Your task to perform on an android device: turn off picture-in-picture Image 0: 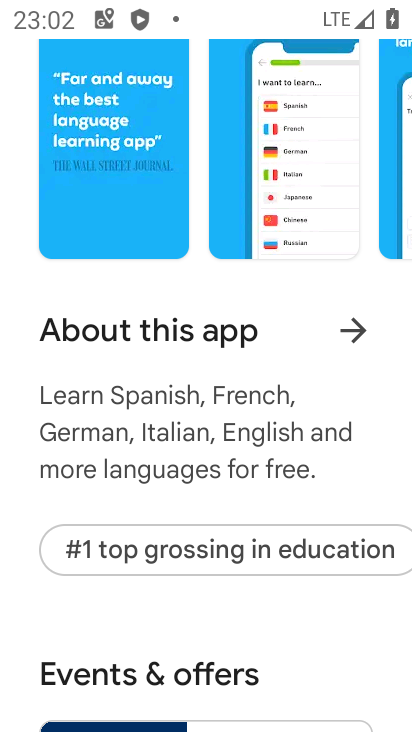
Step 0: press home button
Your task to perform on an android device: turn off picture-in-picture Image 1: 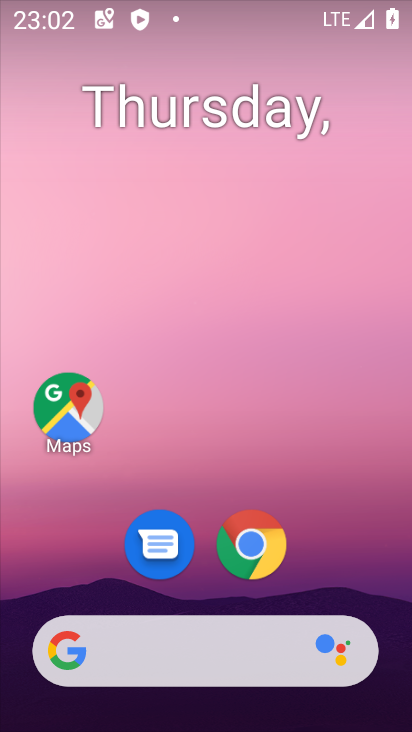
Step 1: drag from (301, 574) to (296, 92)
Your task to perform on an android device: turn off picture-in-picture Image 2: 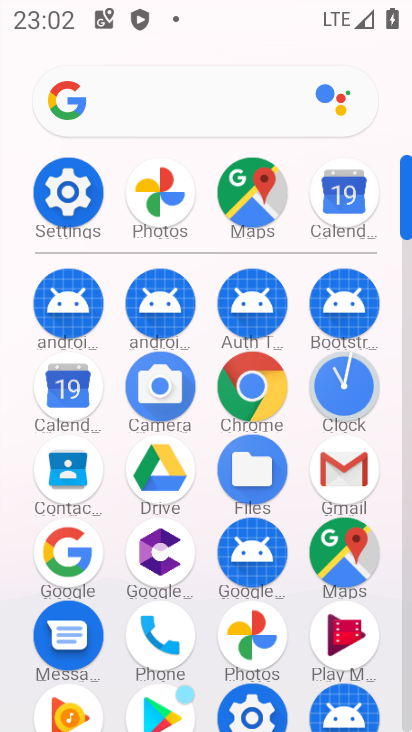
Step 2: click (61, 184)
Your task to perform on an android device: turn off picture-in-picture Image 3: 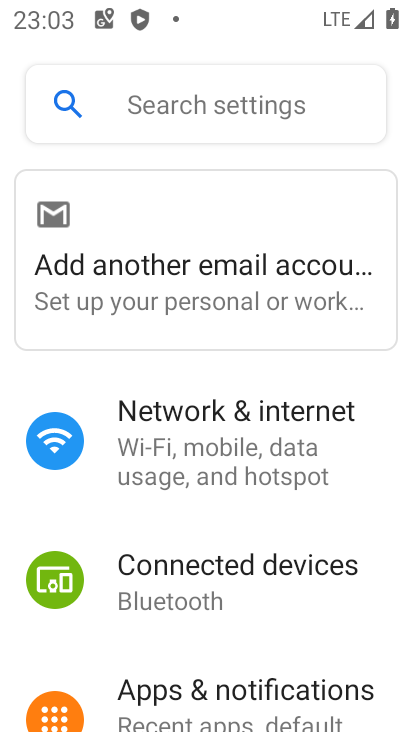
Step 3: drag from (191, 678) to (220, 507)
Your task to perform on an android device: turn off picture-in-picture Image 4: 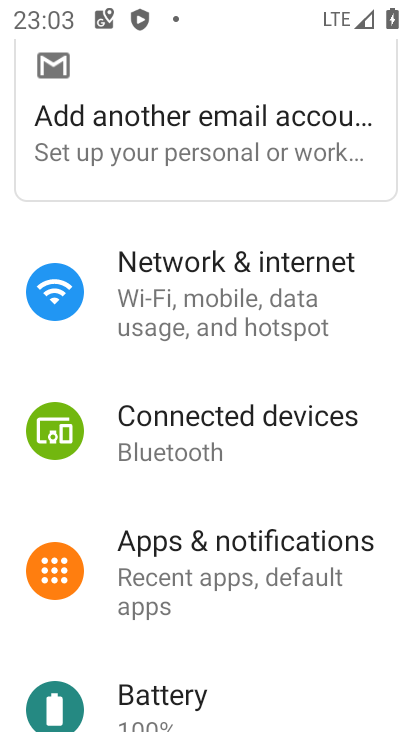
Step 4: click (190, 577)
Your task to perform on an android device: turn off picture-in-picture Image 5: 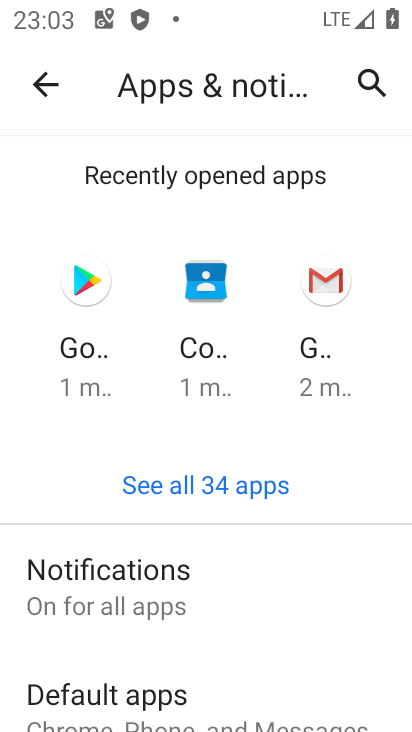
Step 5: drag from (126, 707) to (189, 278)
Your task to perform on an android device: turn off picture-in-picture Image 6: 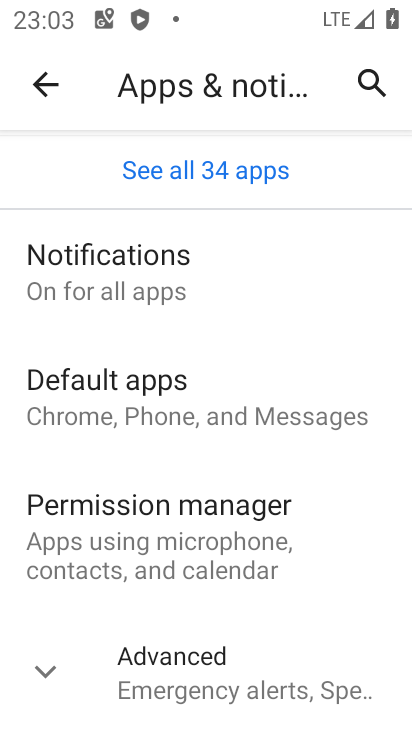
Step 6: click (164, 673)
Your task to perform on an android device: turn off picture-in-picture Image 7: 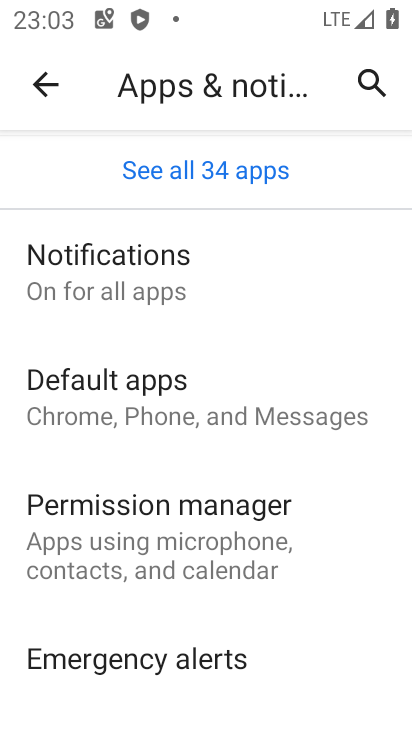
Step 7: drag from (164, 673) to (148, 261)
Your task to perform on an android device: turn off picture-in-picture Image 8: 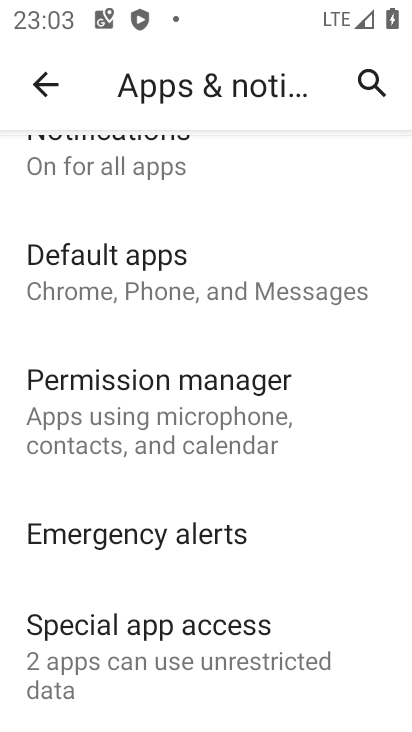
Step 8: click (94, 641)
Your task to perform on an android device: turn off picture-in-picture Image 9: 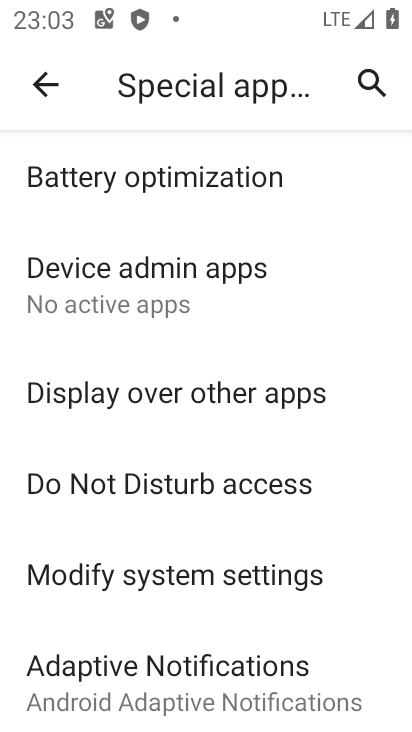
Step 9: drag from (70, 647) to (108, 245)
Your task to perform on an android device: turn off picture-in-picture Image 10: 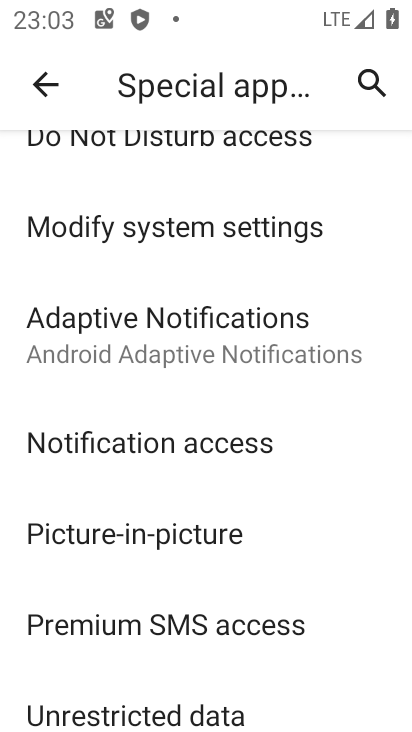
Step 10: click (62, 529)
Your task to perform on an android device: turn off picture-in-picture Image 11: 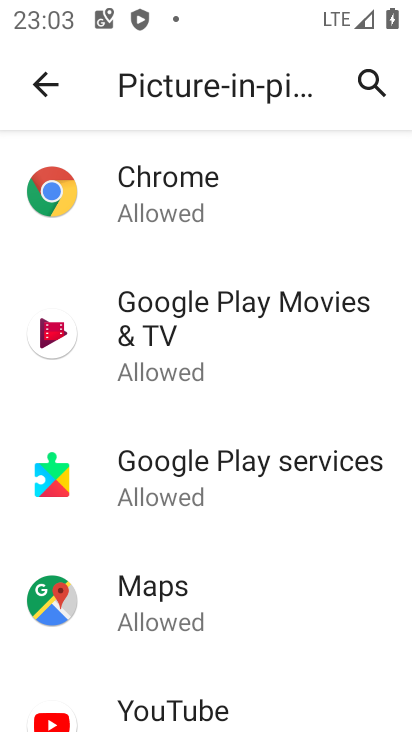
Step 11: click (123, 720)
Your task to perform on an android device: turn off picture-in-picture Image 12: 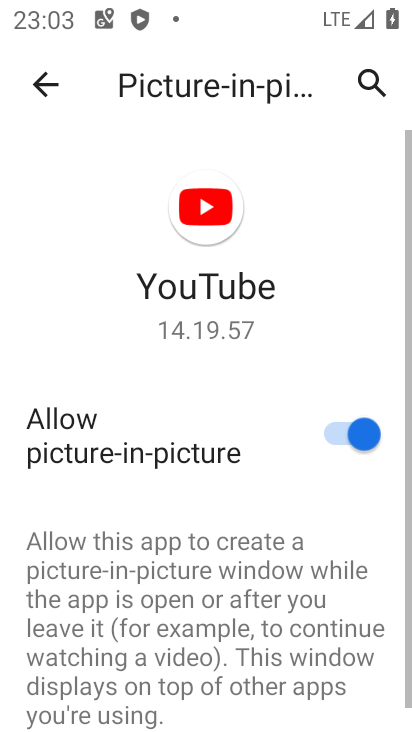
Step 12: click (366, 438)
Your task to perform on an android device: turn off picture-in-picture Image 13: 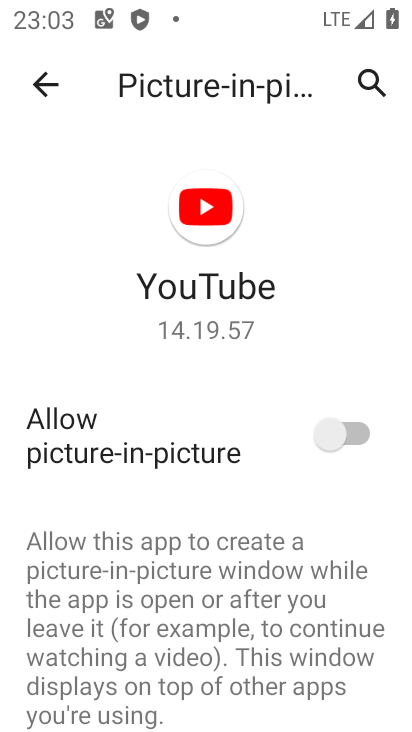
Step 13: task complete